Your task to perform on an android device: Go to sound settings Image 0: 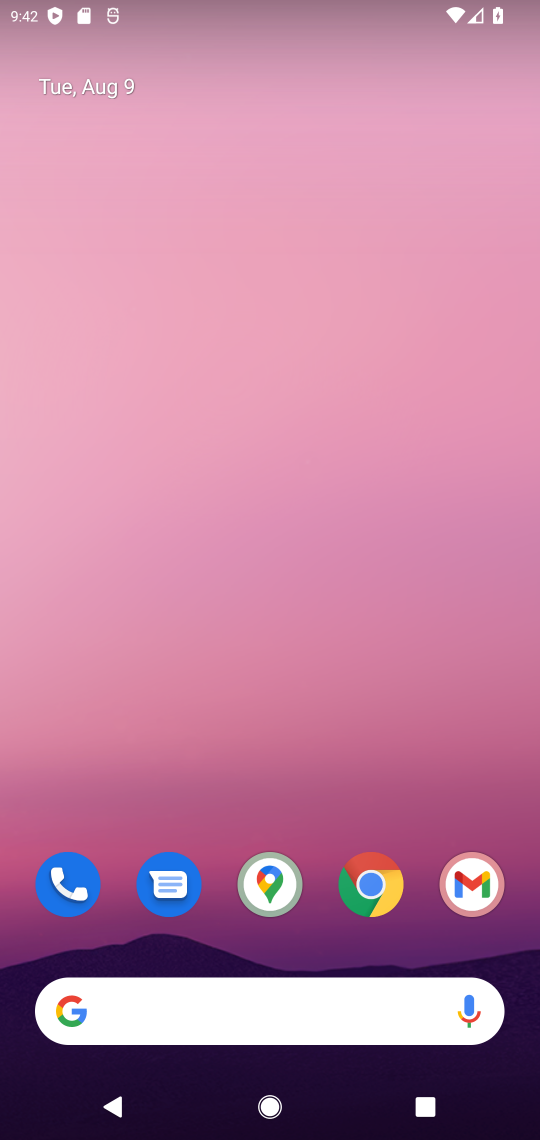
Step 0: drag from (227, 1026) to (280, 176)
Your task to perform on an android device: Go to sound settings Image 1: 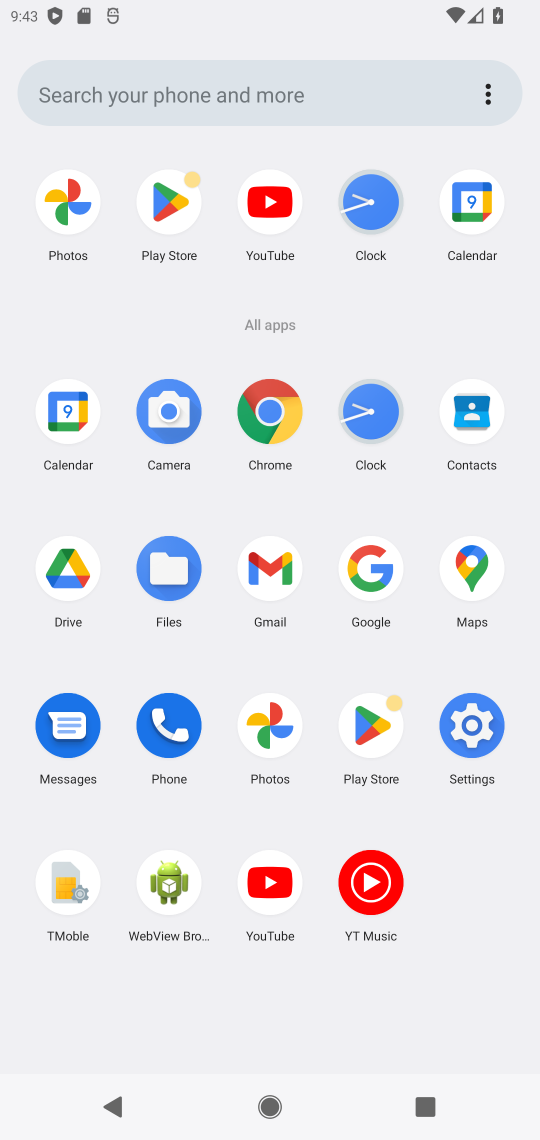
Step 1: click (472, 723)
Your task to perform on an android device: Go to sound settings Image 2: 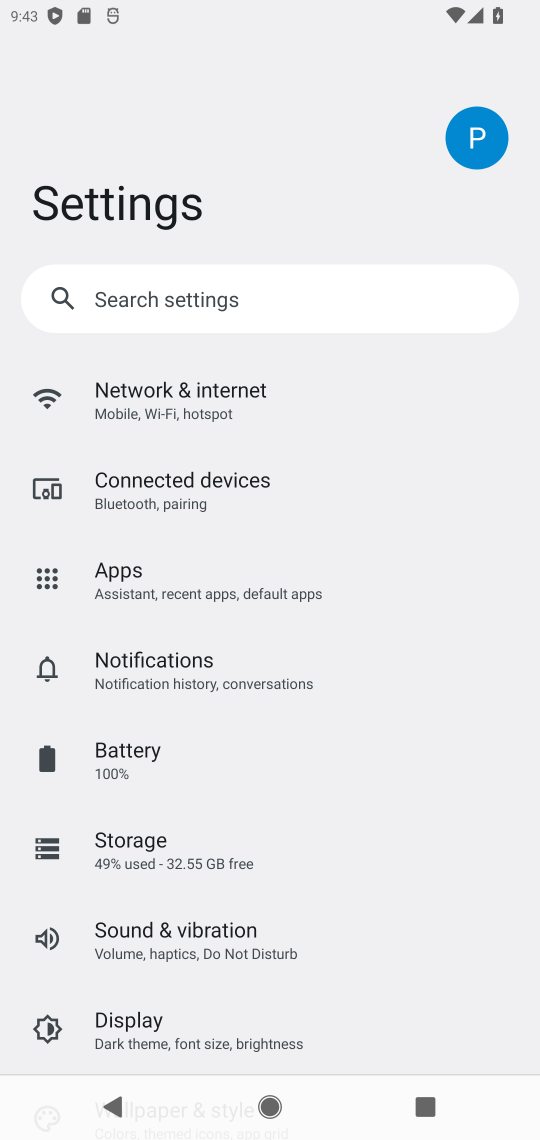
Step 2: click (201, 945)
Your task to perform on an android device: Go to sound settings Image 3: 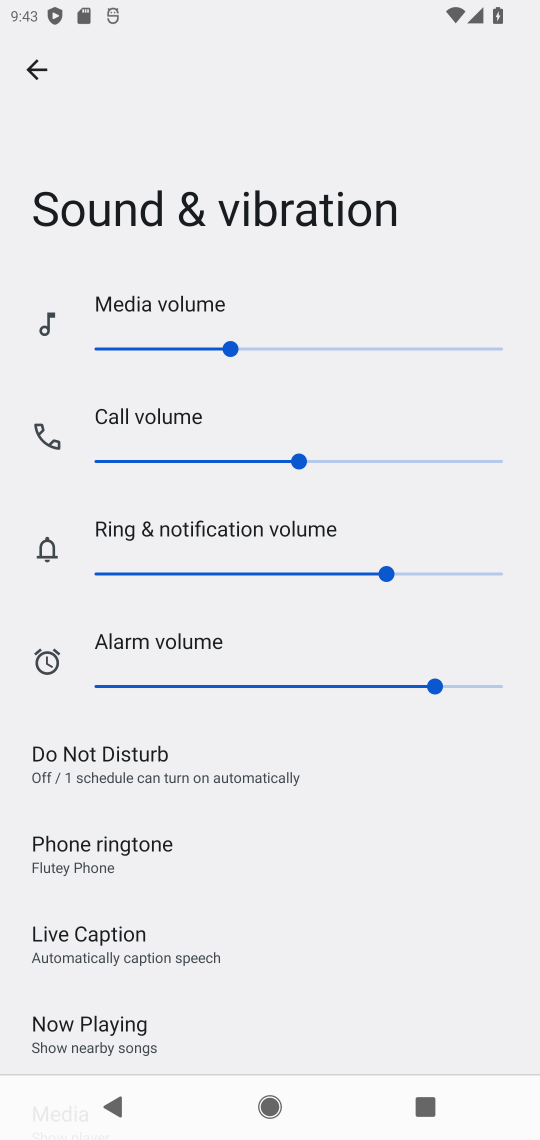
Step 3: task complete